Your task to perform on an android device: change text size in settings app Image 0: 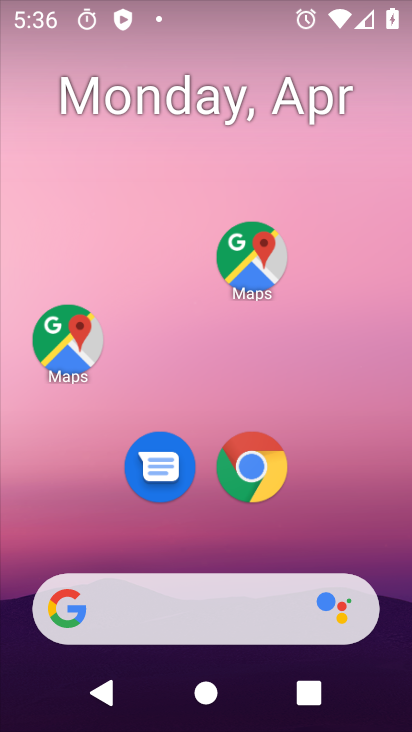
Step 0: drag from (375, 631) to (282, 11)
Your task to perform on an android device: change text size in settings app Image 1: 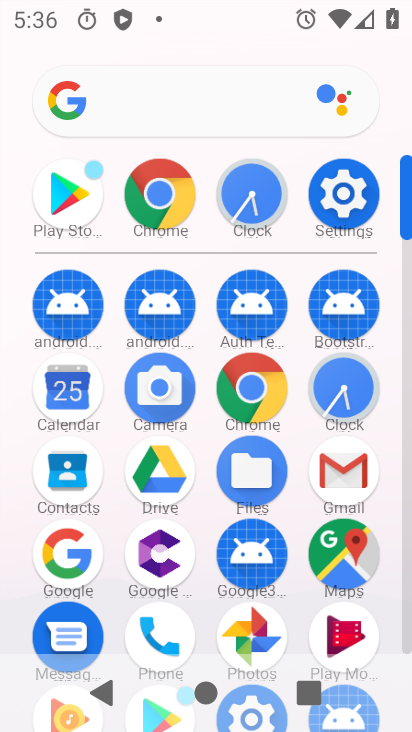
Step 1: click (346, 179)
Your task to perform on an android device: change text size in settings app Image 2: 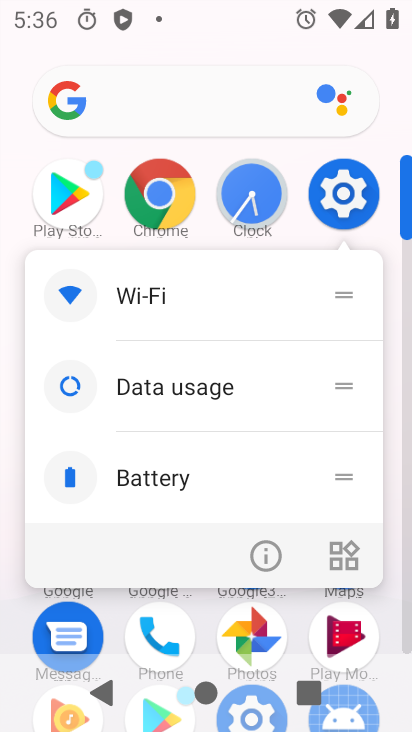
Step 2: click (346, 179)
Your task to perform on an android device: change text size in settings app Image 3: 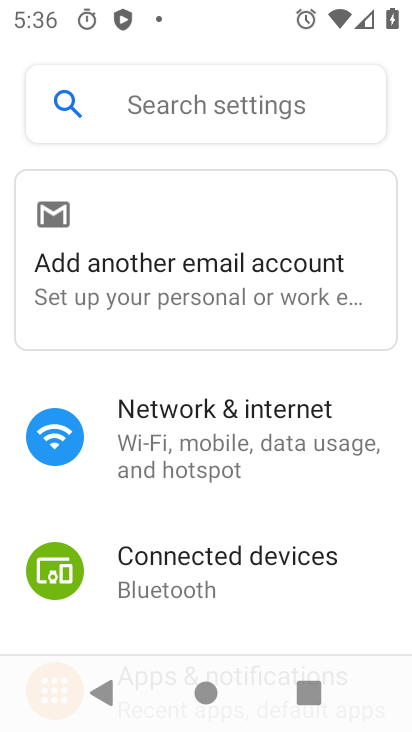
Step 3: drag from (274, 635) to (299, 70)
Your task to perform on an android device: change text size in settings app Image 4: 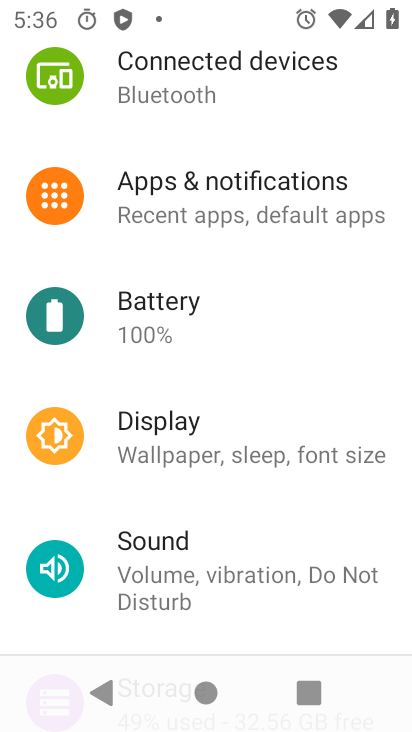
Step 4: drag from (185, 622) to (294, 5)
Your task to perform on an android device: change text size in settings app Image 5: 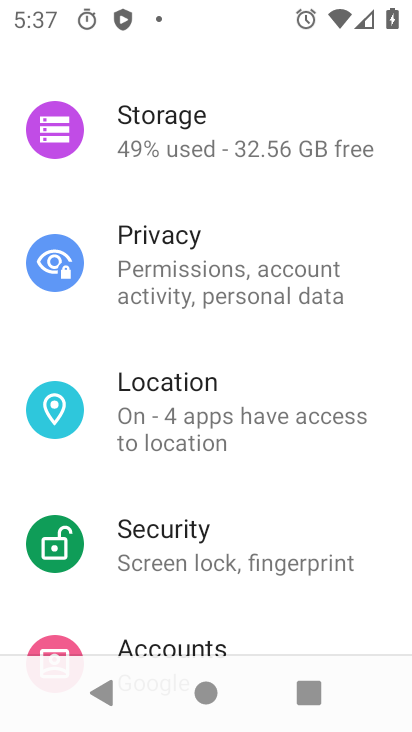
Step 5: drag from (270, 659) to (345, 64)
Your task to perform on an android device: change text size in settings app Image 6: 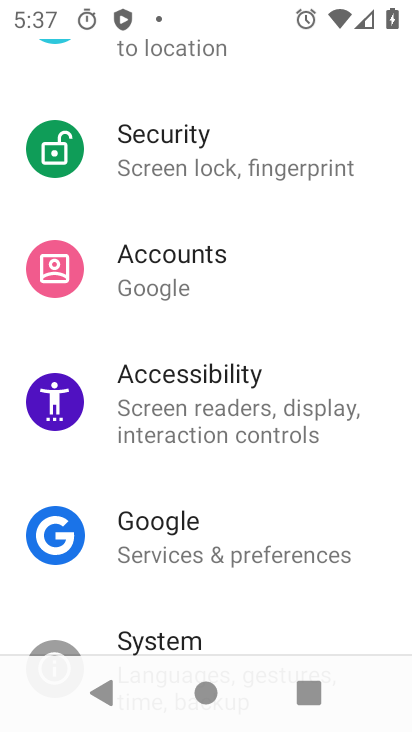
Step 6: click (285, 415)
Your task to perform on an android device: change text size in settings app Image 7: 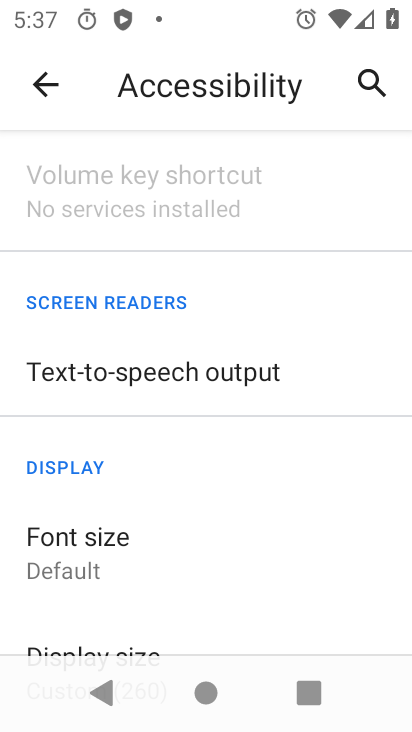
Step 7: click (216, 566)
Your task to perform on an android device: change text size in settings app Image 8: 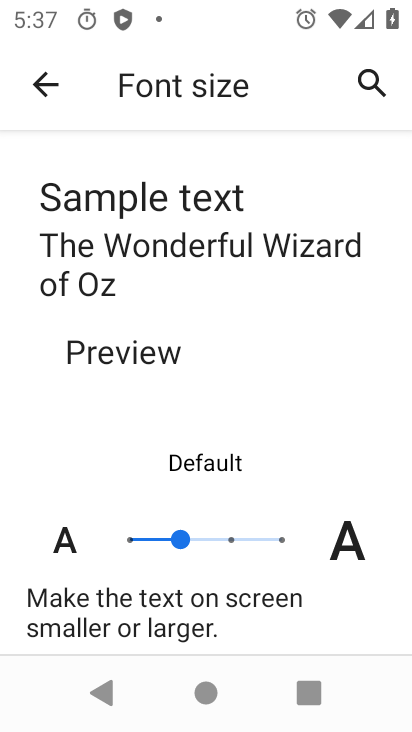
Step 8: click (147, 538)
Your task to perform on an android device: change text size in settings app Image 9: 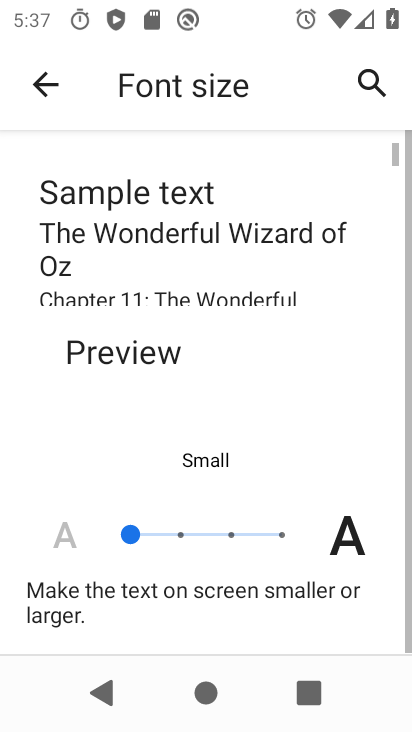
Step 9: task complete